Your task to perform on an android device: Open Google Chrome and open the bookmarks view Image 0: 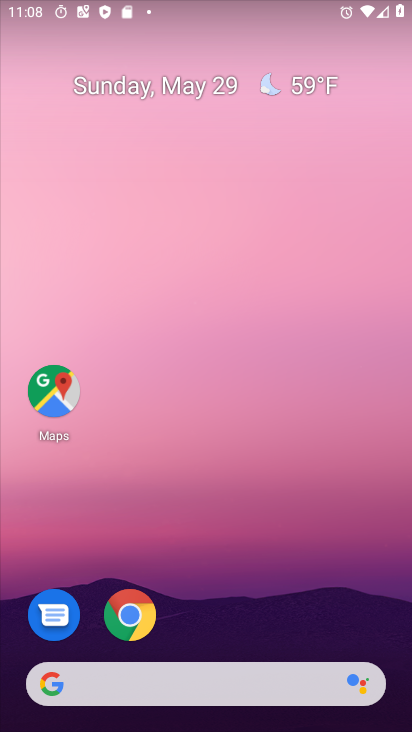
Step 0: drag from (220, 620) to (261, 59)
Your task to perform on an android device: Open Google Chrome and open the bookmarks view Image 1: 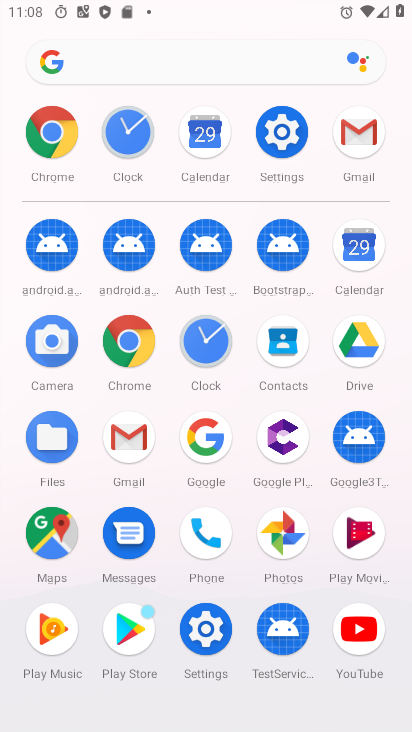
Step 1: click (133, 346)
Your task to perform on an android device: Open Google Chrome and open the bookmarks view Image 2: 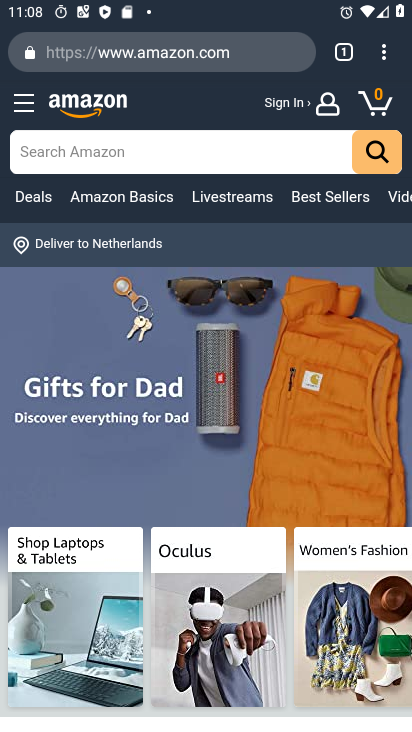
Step 2: click (381, 46)
Your task to perform on an android device: Open Google Chrome and open the bookmarks view Image 3: 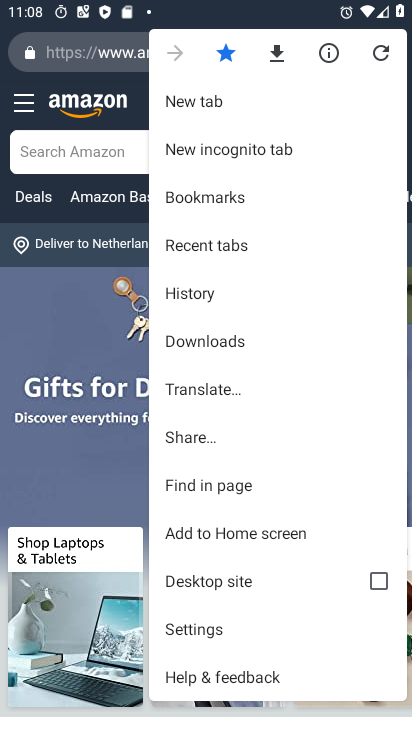
Step 3: click (204, 201)
Your task to perform on an android device: Open Google Chrome and open the bookmarks view Image 4: 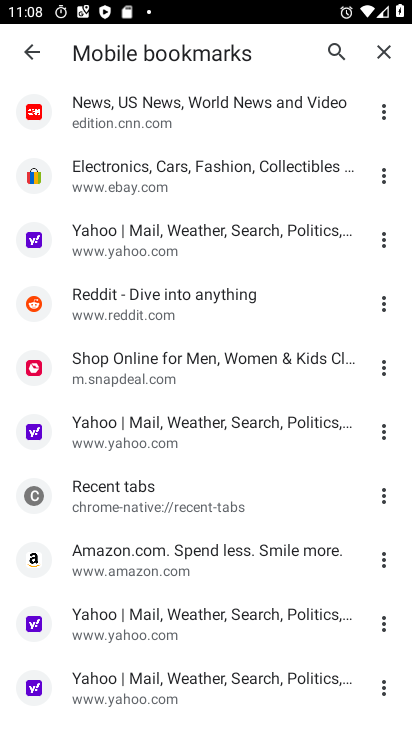
Step 4: click (149, 236)
Your task to perform on an android device: Open Google Chrome and open the bookmarks view Image 5: 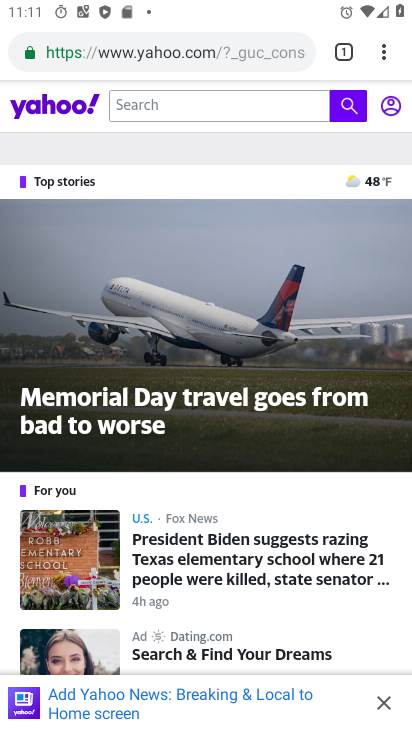
Step 5: task complete